Your task to perform on an android device: Open Yahoo.com Image 0: 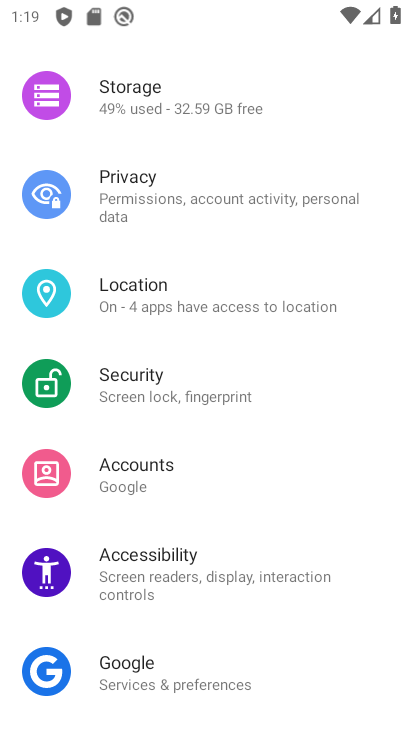
Step 0: press back button
Your task to perform on an android device: Open Yahoo.com Image 1: 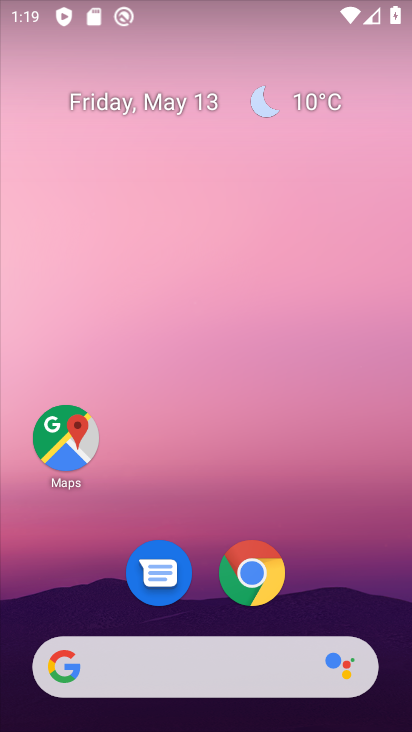
Step 1: drag from (321, 458) to (252, 3)
Your task to perform on an android device: Open Yahoo.com Image 2: 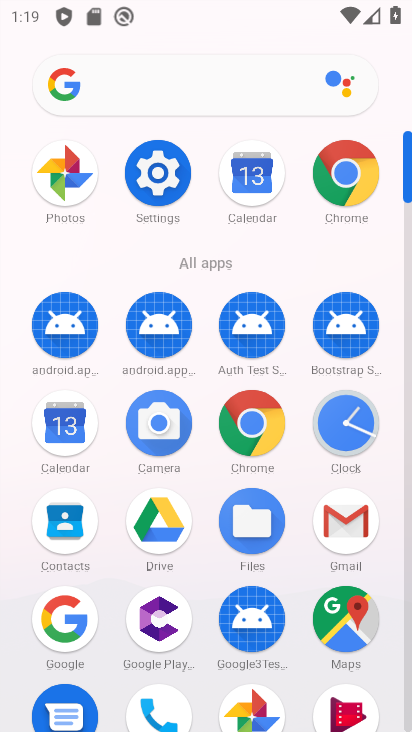
Step 2: drag from (13, 481) to (0, 270)
Your task to perform on an android device: Open Yahoo.com Image 3: 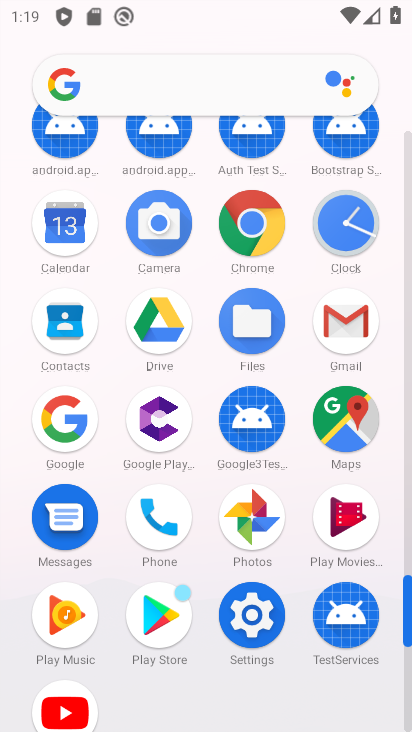
Step 3: click (254, 215)
Your task to perform on an android device: Open Yahoo.com Image 4: 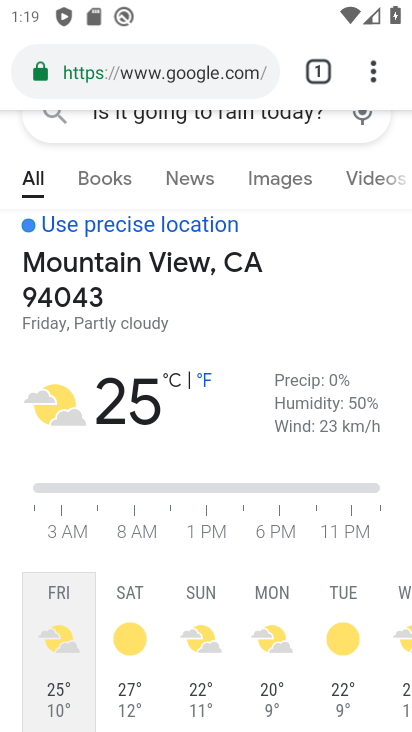
Step 4: click (190, 64)
Your task to perform on an android device: Open Yahoo.com Image 5: 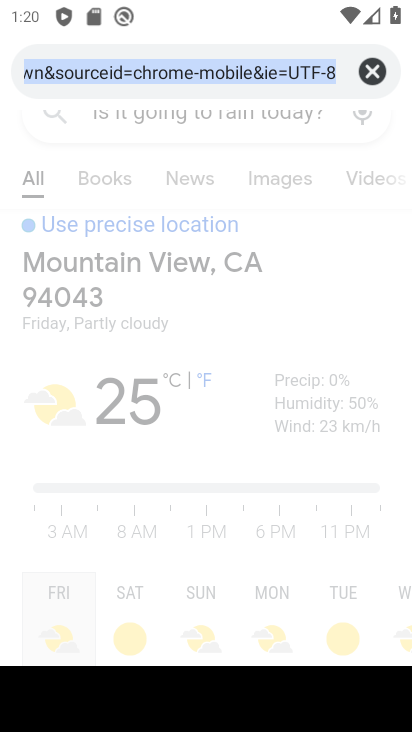
Step 5: click (365, 69)
Your task to perform on an android device: Open Yahoo.com Image 6: 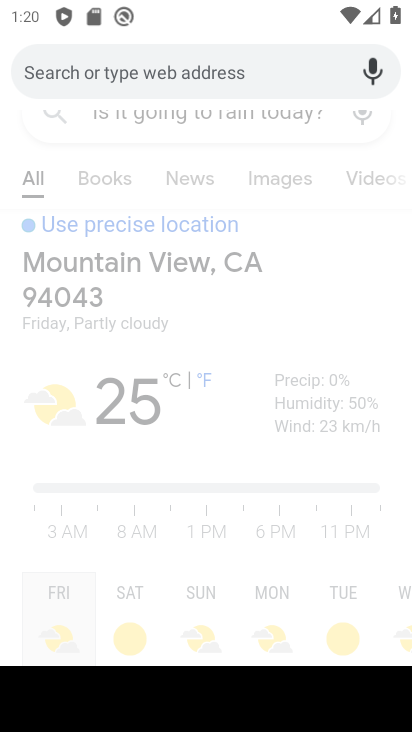
Step 6: type "Yahoo.com"
Your task to perform on an android device: Open Yahoo.com Image 7: 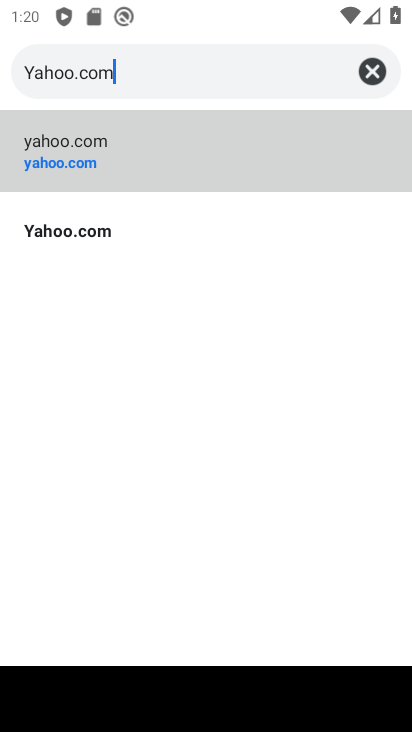
Step 7: type ""
Your task to perform on an android device: Open Yahoo.com Image 8: 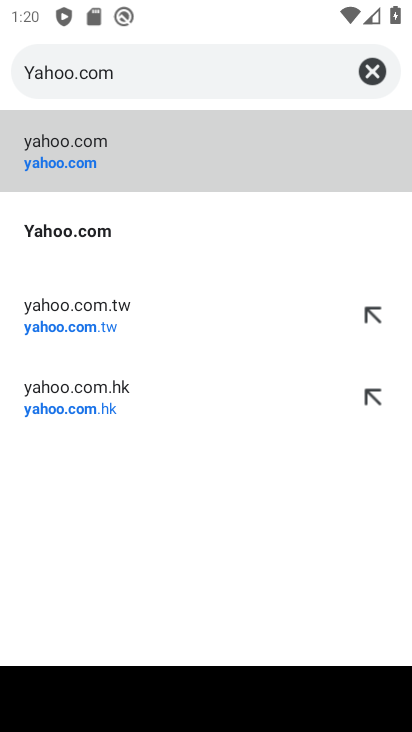
Step 8: click (143, 140)
Your task to perform on an android device: Open Yahoo.com Image 9: 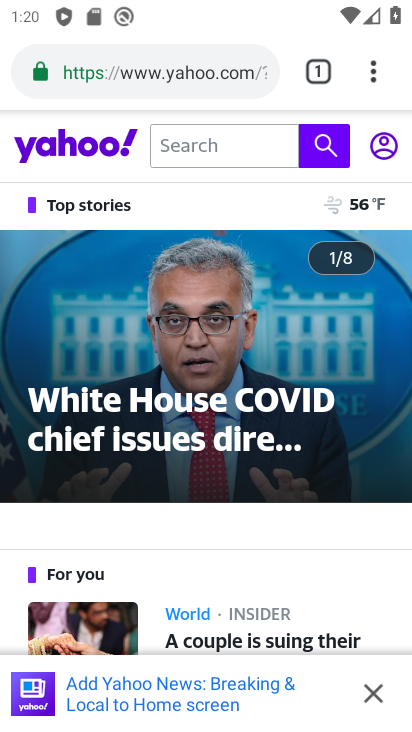
Step 9: task complete